Your task to perform on an android device: turn off translation in the chrome app Image 0: 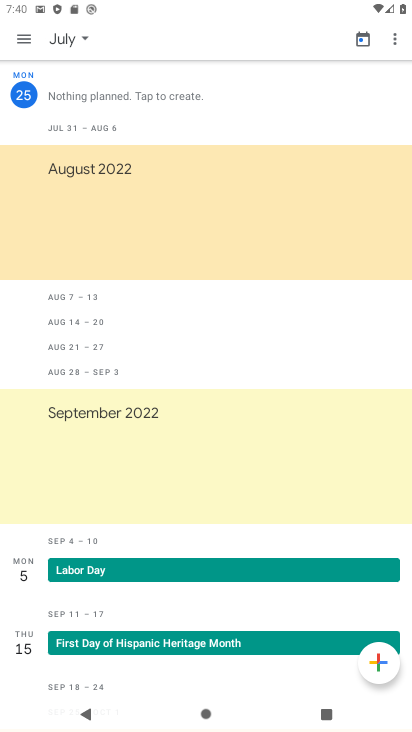
Step 0: press home button
Your task to perform on an android device: turn off translation in the chrome app Image 1: 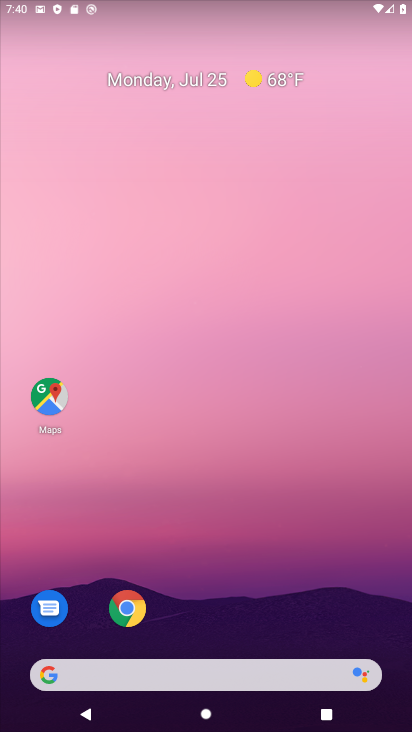
Step 1: click (136, 614)
Your task to perform on an android device: turn off translation in the chrome app Image 2: 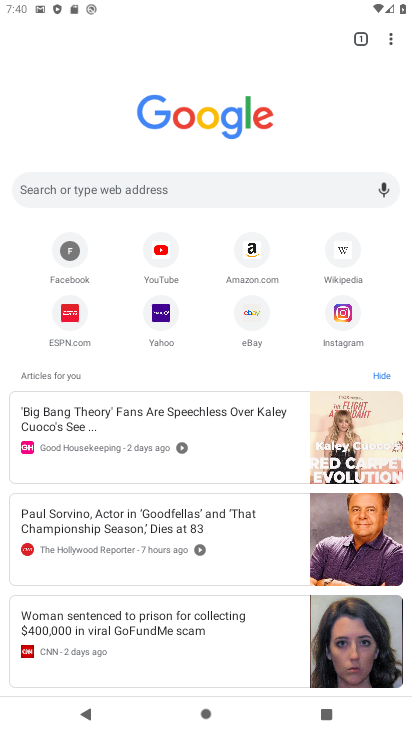
Step 2: click (393, 46)
Your task to perform on an android device: turn off translation in the chrome app Image 3: 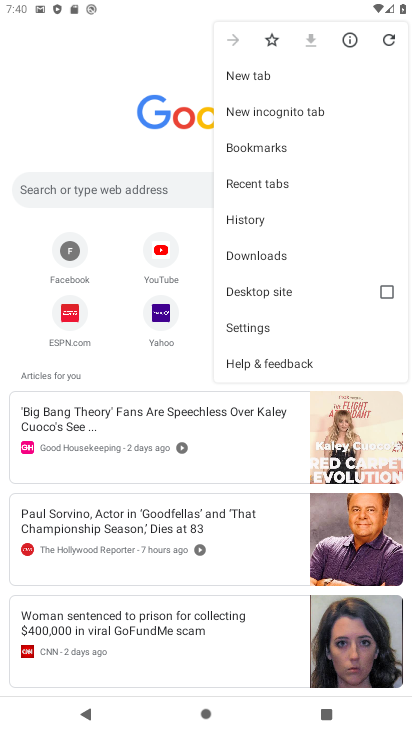
Step 3: click (232, 332)
Your task to perform on an android device: turn off translation in the chrome app Image 4: 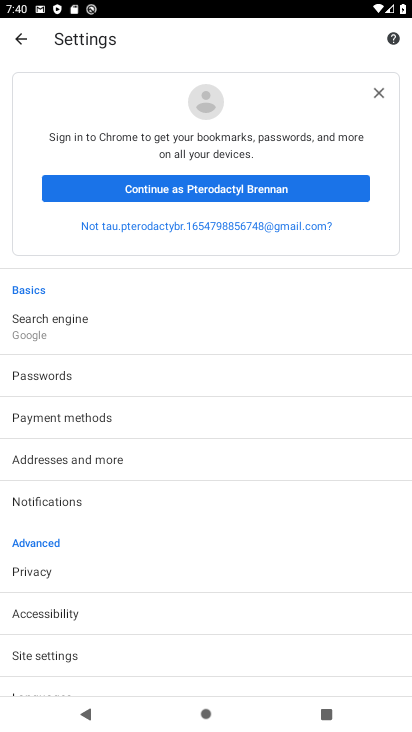
Step 4: drag from (145, 640) to (128, 361)
Your task to perform on an android device: turn off translation in the chrome app Image 5: 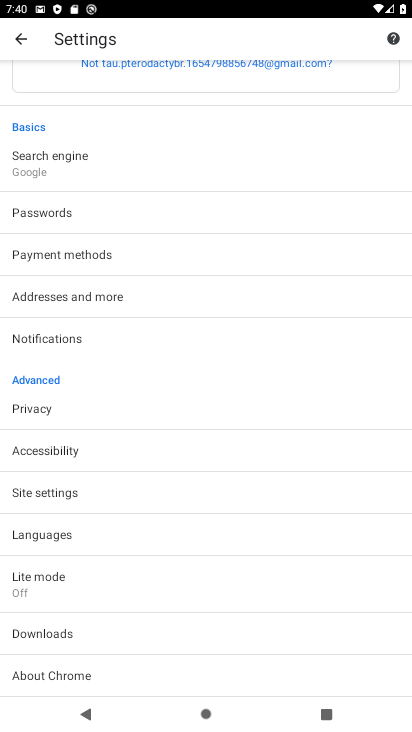
Step 5: click (39, 530)
Your task to perform on an android device: turn off translation in the chrome app Image 6: 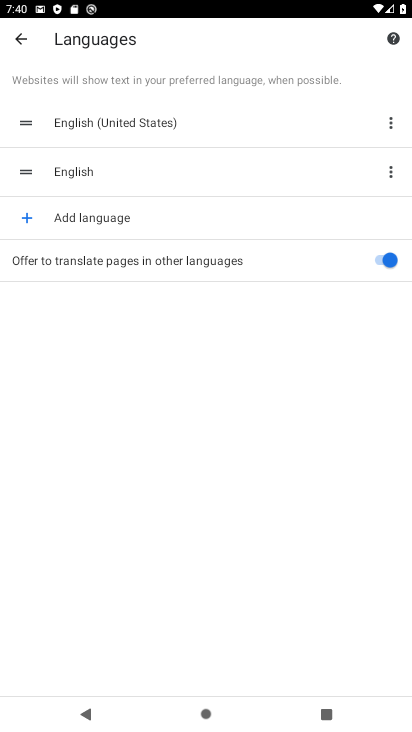
Step 6: click (386, 263)
Your task to perform on an android device: turn off translation in the chrome app Image 7: 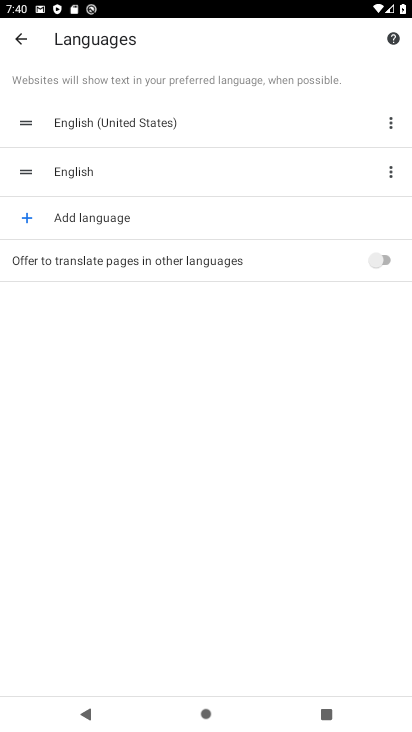
Step 7: task complete